Your task to perform on an android device: Go to location settings Image 0: 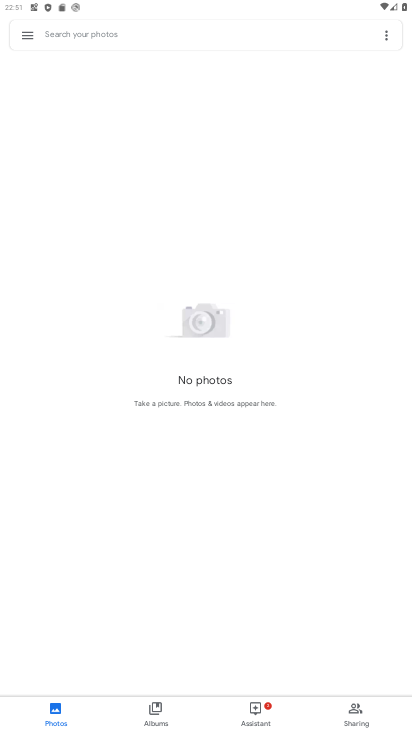
Step 0: press home button
Your task to perform on an android device: Go to location settings Image 1: 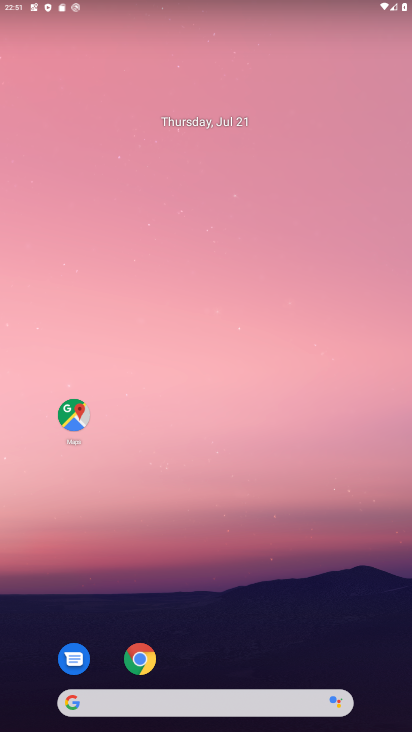
Step 1: drag from (264, 653) to (243, 124)
Your task to perform on an android device: Go to location settings Image 2: 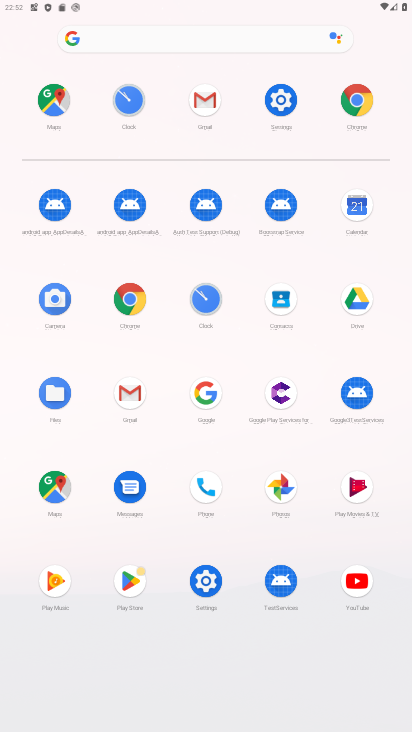
Step 2: click (283, 96)
Your task to perform on an android device: Go to location settings Image 3: 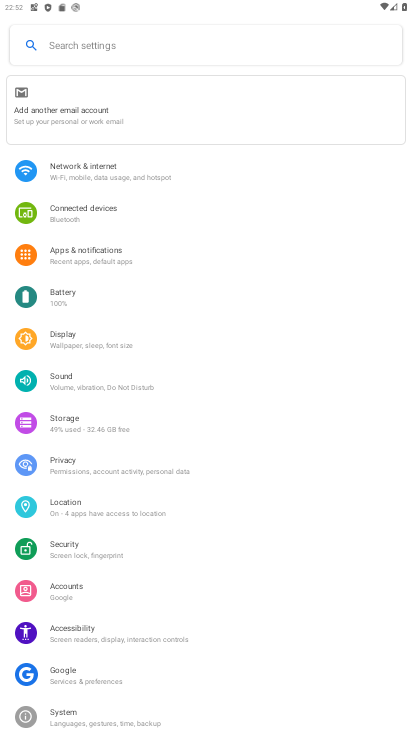
Step 3: click (80, 522)
Your task to perform on an android device: Go to location settings Image 4: 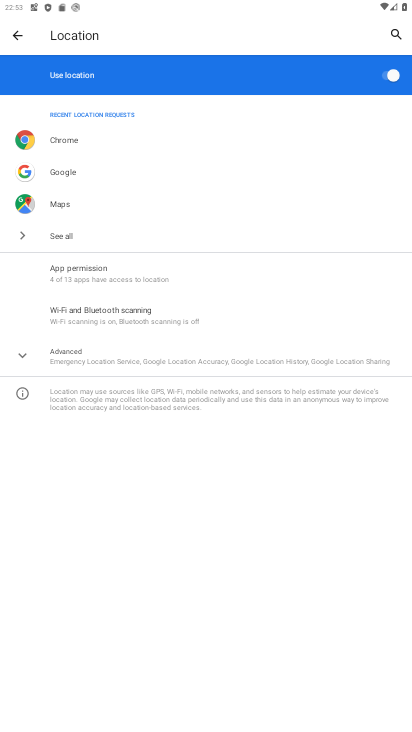
Step 4: task complete